Your task to perform on an android device: toggle wifi Image 0: 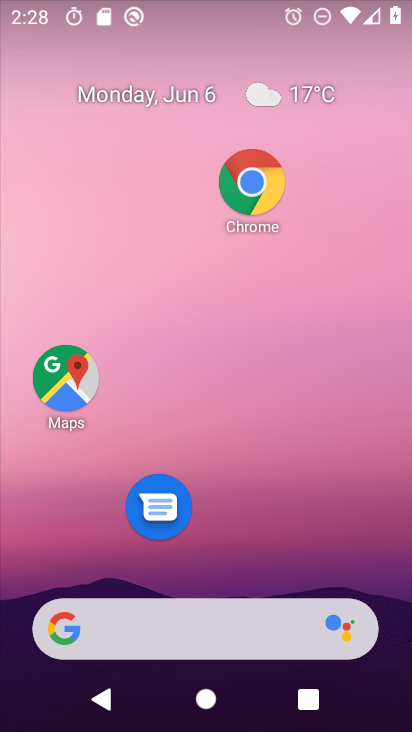
Step 0: drag from (326, 660) to (227, 155)
Your task to perform on an android device: toggle wifi Image 1: 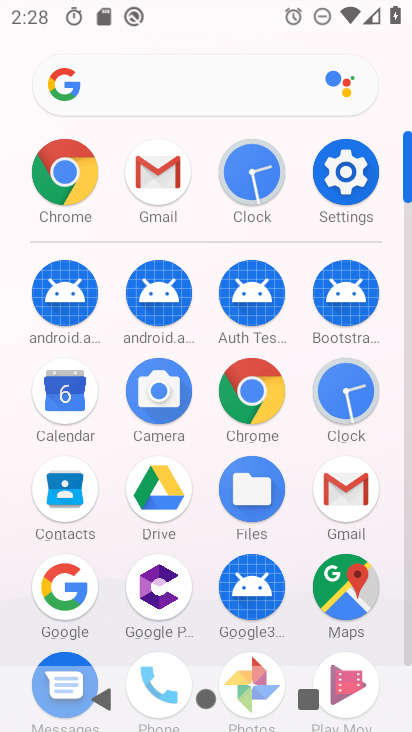
Step 1: click (341, 186)
Your task to perform on an android device: toggle wifi Image 2: 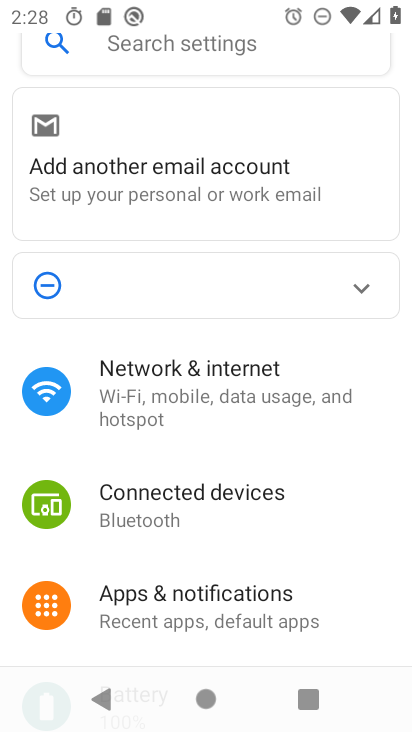
Step 2: click (180, 387)
Your task to perform on an android device: toggle wifi Image 3: 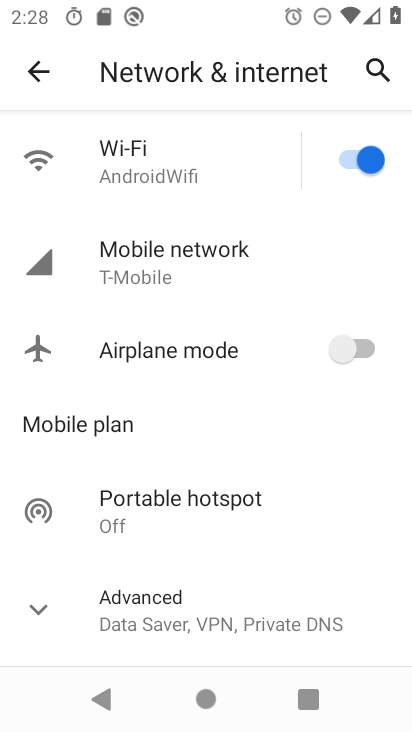
Step 3: click (155, 174)
Your task to perform on an android device: toggle wifi Image 4: 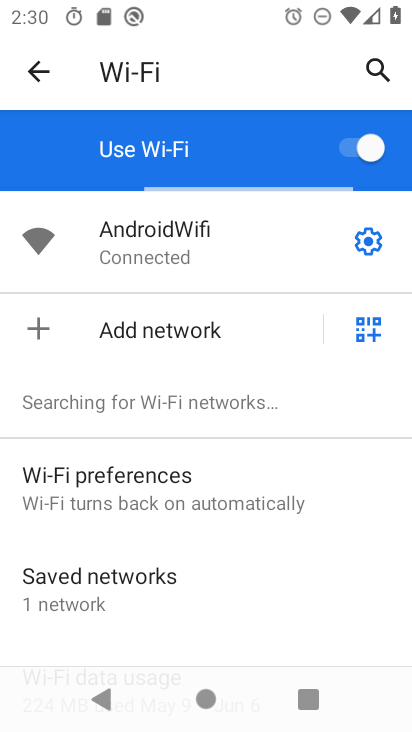
Step 4: task complete